Your task to perform on an android device: turn notification dots on Image 0: 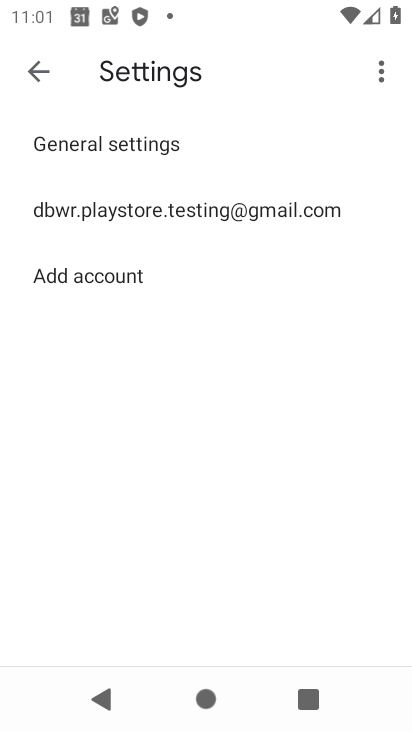
Step 0: press back button
Your task to perform on an android device: turn notification dots on Image 1: 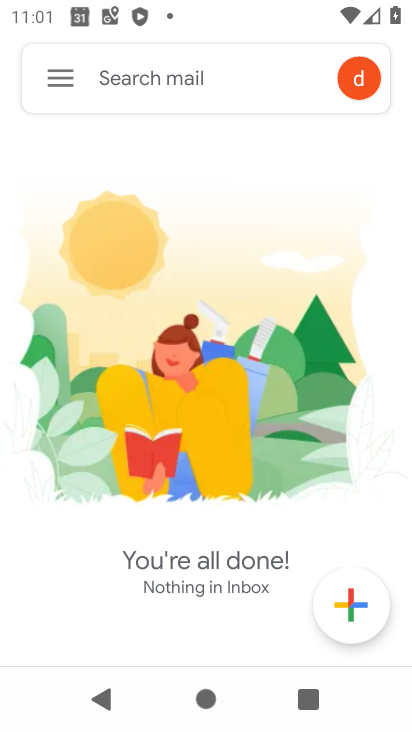
Step 1: press back button
Your task to perform on an android device: turn notification dots on Image 2: 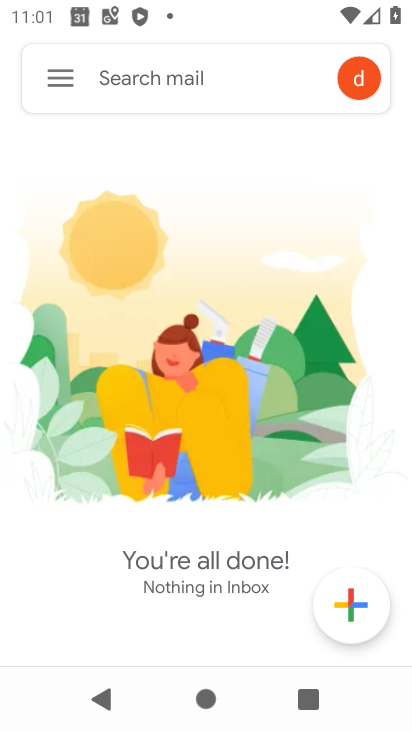
Step 2: press back button
Your task to perform on an android device: turn notification dots on Image 3: 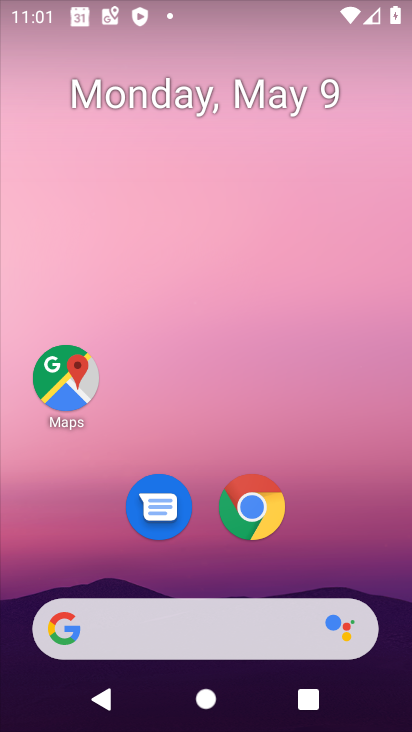
Step 3: drag from (205, 563) to (290, 34)
Your task to perform on an android device: turn notification dots on Image 4: 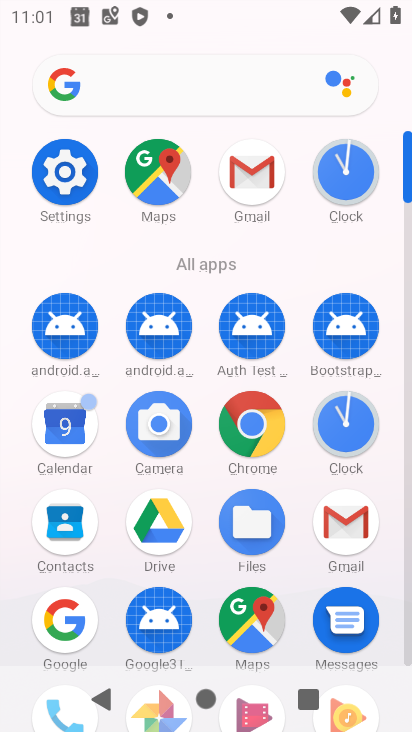
Step 4: click (57, 175)
Your task to perform on an android device: turn notification dots on Image 5: 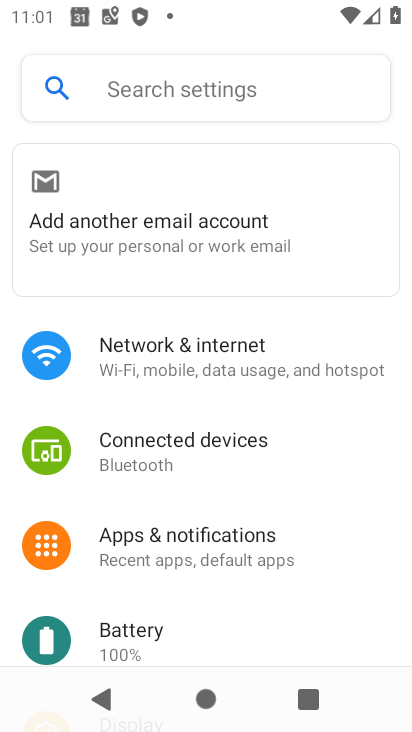
Step 5: click (199, 525)
Your task to perform on an android device: turn notification dots on Image 6: 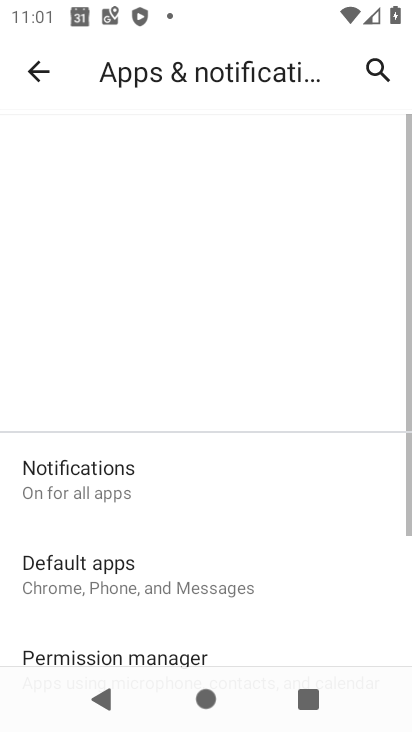
Step 6: click (162, 560)
Your task to perform on an android device: turn notification dots on Image 7: 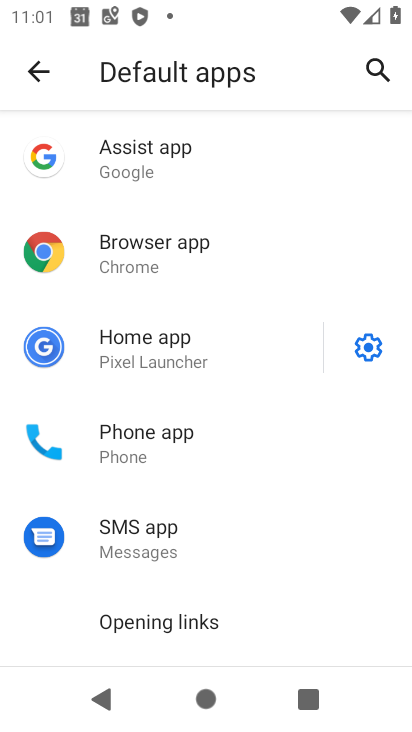
Step 7: click (38, 65)
Your task to perform on an android device: turn notification dots on Image 8: 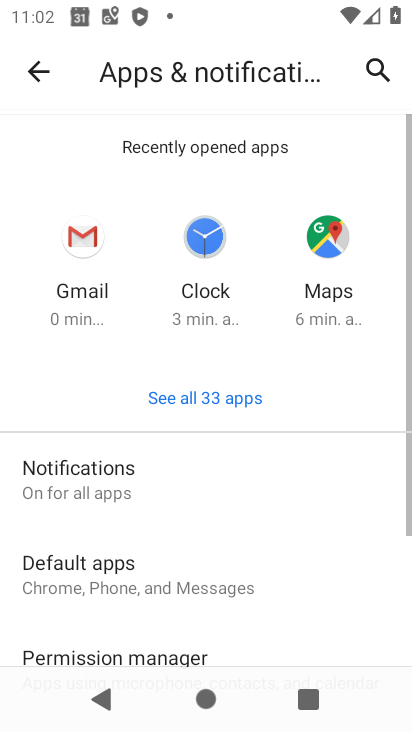
Step 8: click (36, 59)
Your task to perform on an android device: turn notification dots on Image 9: 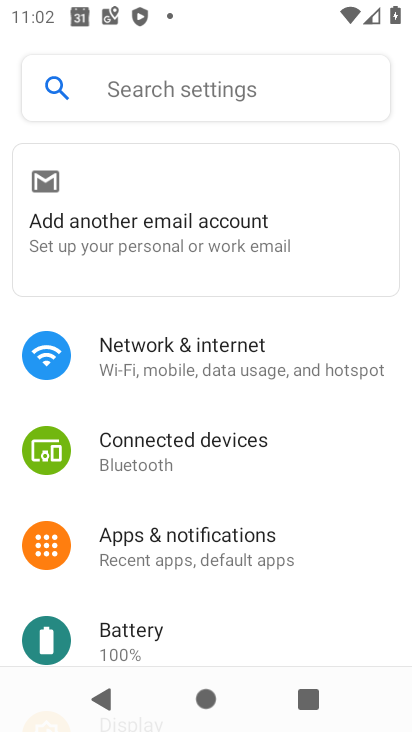
Step 9: click (166, 557)
Your task to perform on an android device: turn notification dots on Image 10: 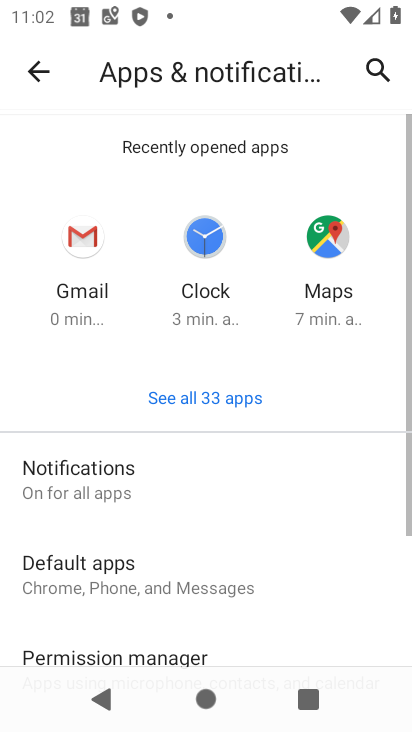
Step 10: click (114, 484)
Your task to perform on an android device: turn notification dots on Image 11: 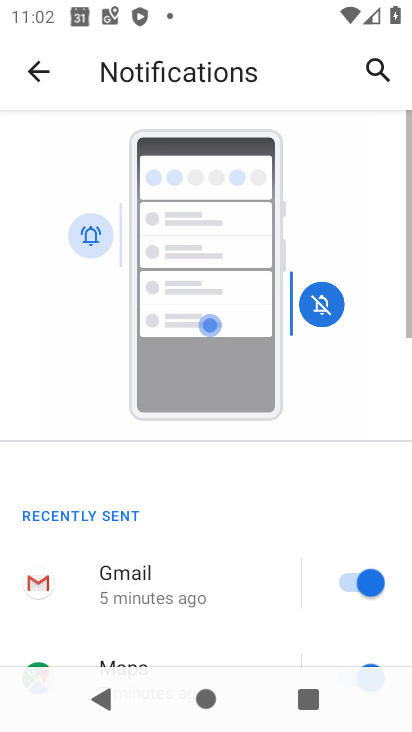
Step 11: drag from (184, 596) to (355, 0)
Your task to perform on an android device: turn notification dots on Image 12: 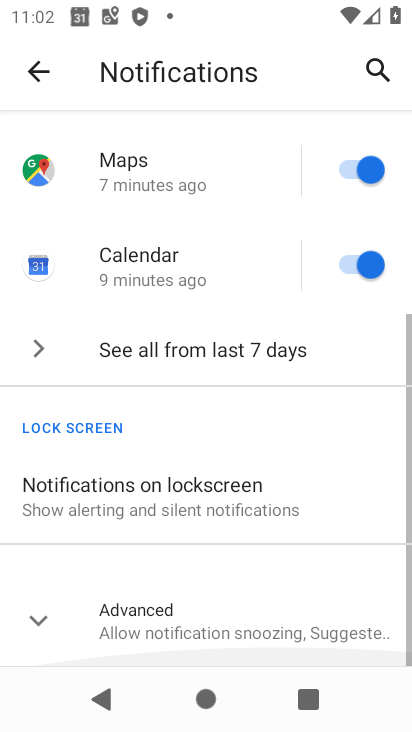
Step 12: drag from (195, 589) to (279, 113)
Your task to perform on an android device: turn notification dots on Image 13: 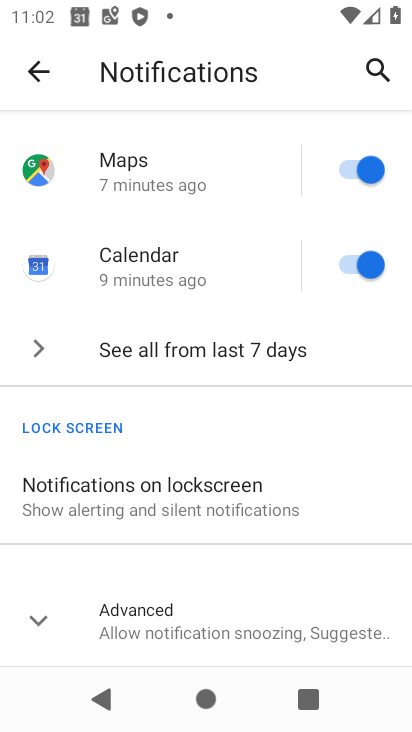
Step 13: click (205, 612)
Your task to perform on an android device: turn notification dots on Image 14: 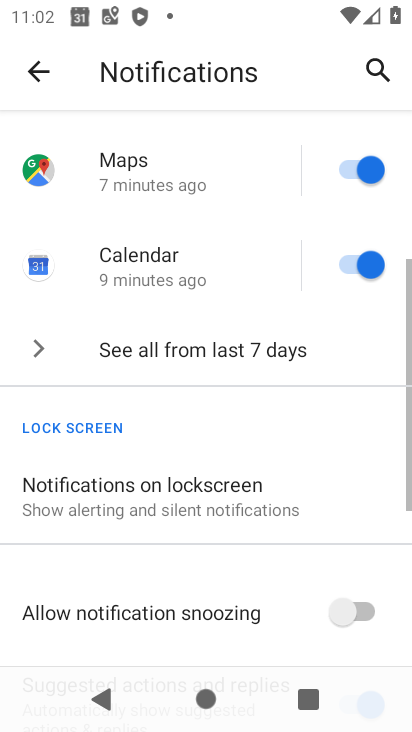
Step 14: task complete